Your task to perform on an android device: find photos in the google photos app Image 0: 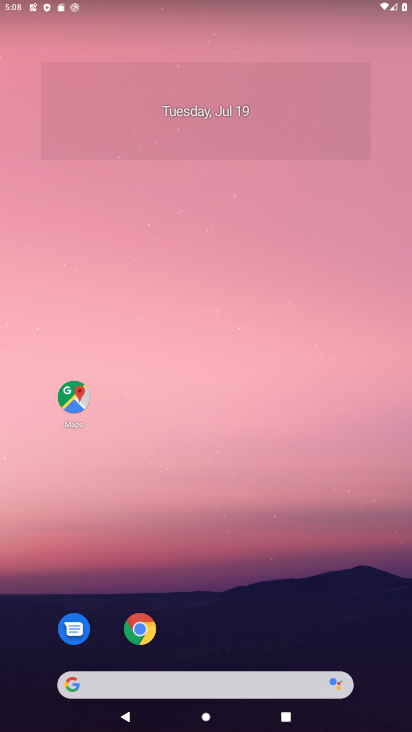
Step 0: press home button
Your task to perform on an android device: find photos in the google photos app Image 1: 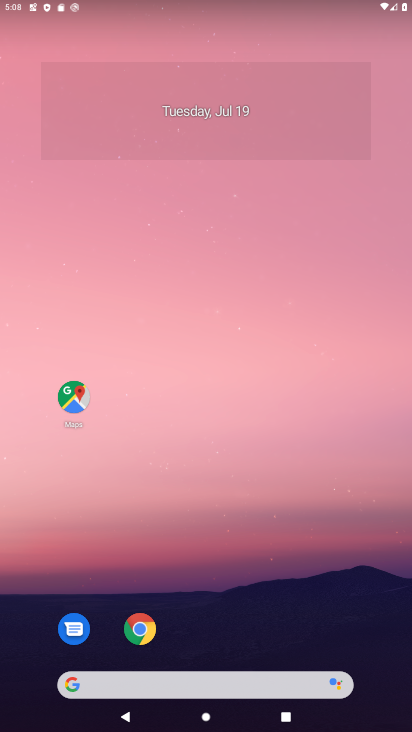
Step 1: drag from (266, 650) to (206, 2)
Your task to perform on an android device: find photos in the google photos app Image 2: 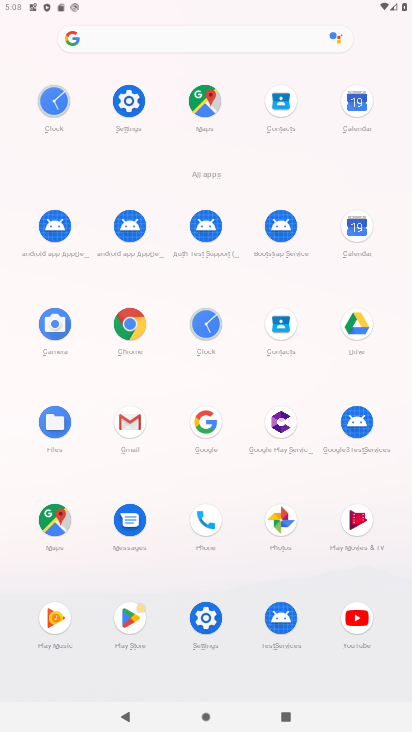
Step 2: click (277, 518)
Your task to perform on an android device: find photos in the google photos app Image 3: 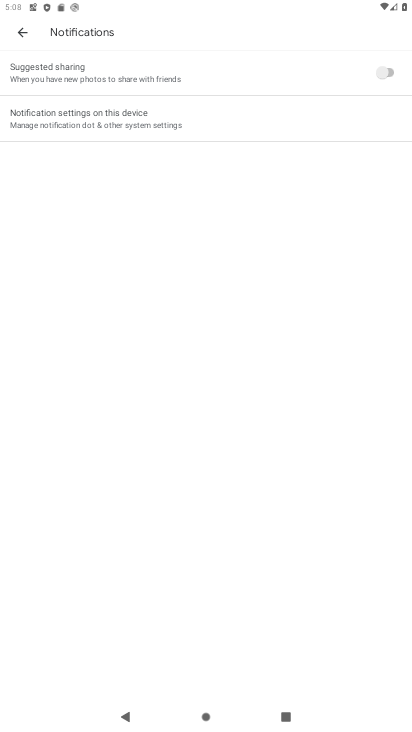
Step 3: click (21, 35)
Your task to perform on an android device: find photos in the google photos app Image 4: 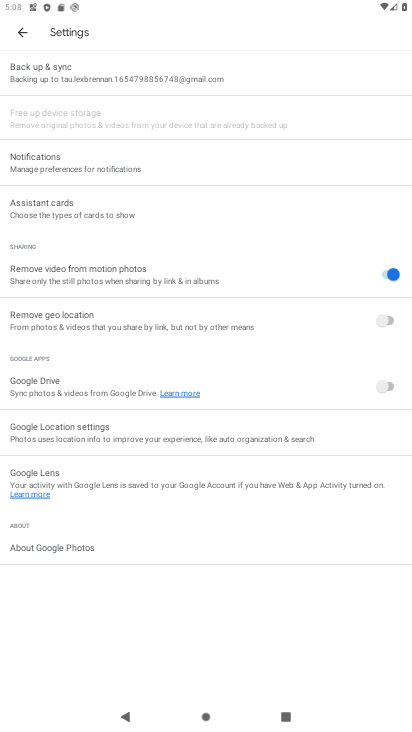
Step 4: click (21, 35)
Your task to perform on an android device: find photos in the google photos app Image 5: 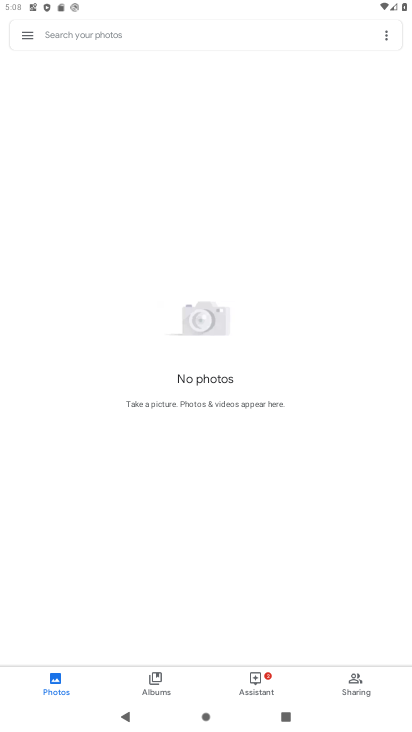
Step 5: click (50, 674)
Your task to perform on an android device: find photos in the google photos app Image 6: 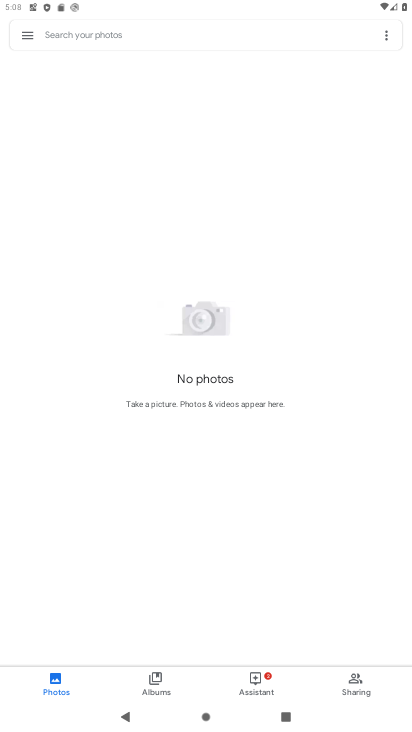
Step 6: task complete